Your task to perform on an android device: Open calendar and show me the third week of next month Image 0: 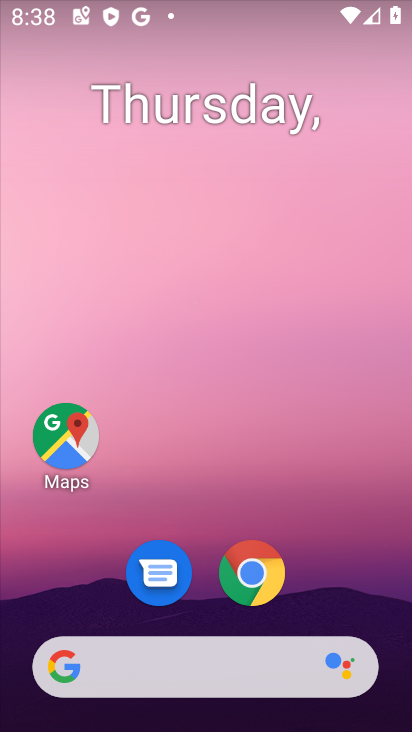
Step 0: drag from (355, 592) to (348, 194)
Your task to perform on an android device: Open calendar and show me the third week of next month Image 1: 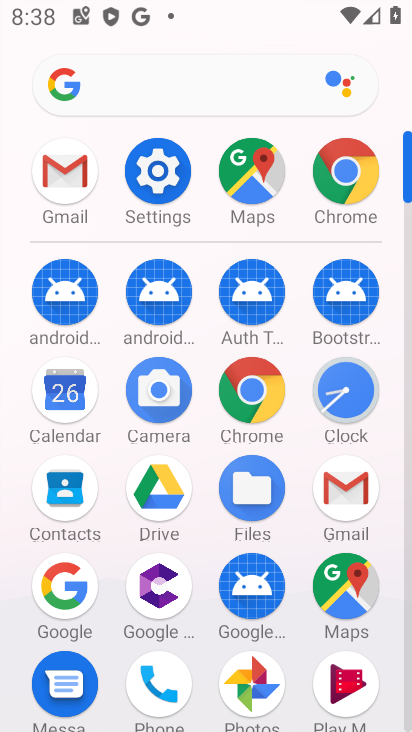
Step 1: click (59, 398)
Your task to perform on an android device: Open calendar and show me the third week of next month Image 2: 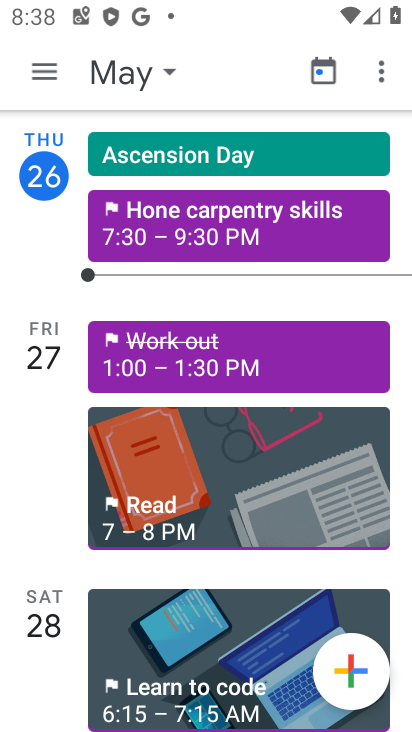
Step 2: click (103, 68)
Your task to perform on an android device: Open calendar and show me the third week of next month Image 3: 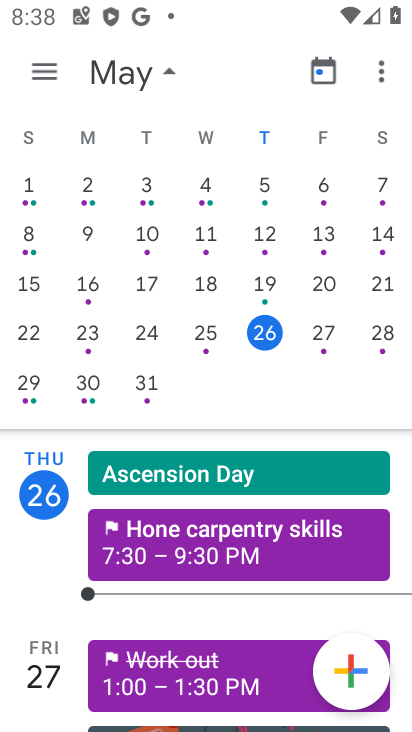
Step 3: drag from (328, 262) to (8, 232)
Your task to perform on an android device: Open calendar and show me the third week of next month Image 4: 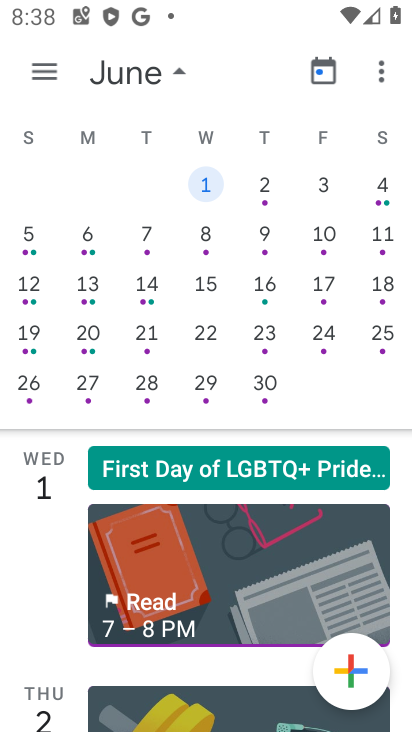
Step 4: click (28, 281)
Your task to perform on an android device: Open calendar and show me the third week of next month Image 5: 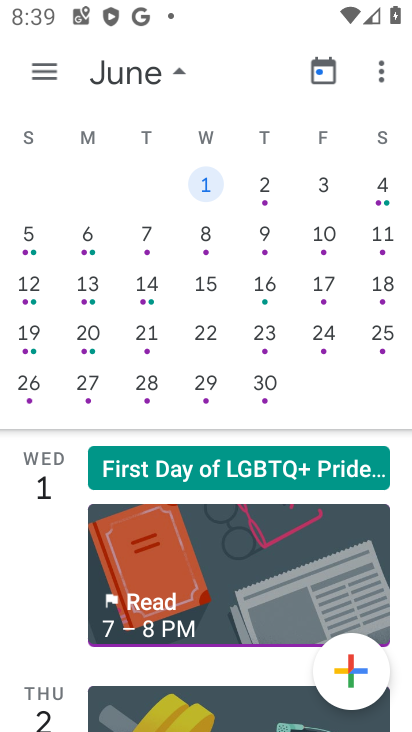
Step 5: task complete